Your task to perform on an android device: check storage Image 0: 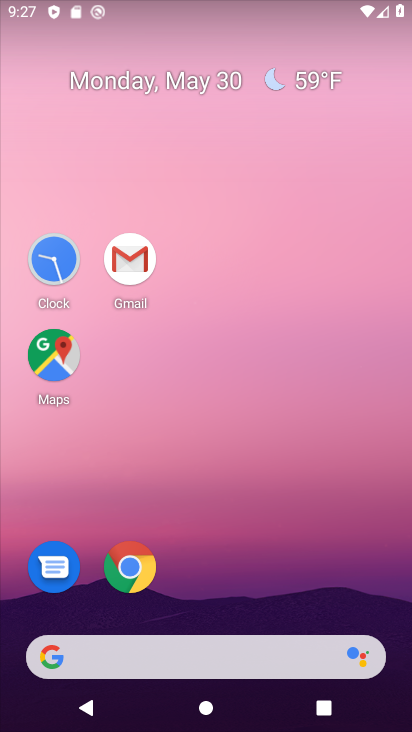
Step 0: drag from (266, 571) to (304, 157)
Your task to perform on an android device: check storage Image 1: 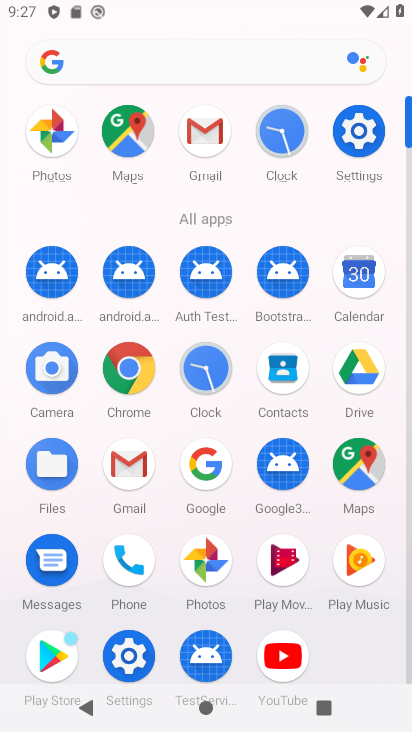
Step 1: click (356, 117)
Your task to perform on an android device: check storage Image 2: 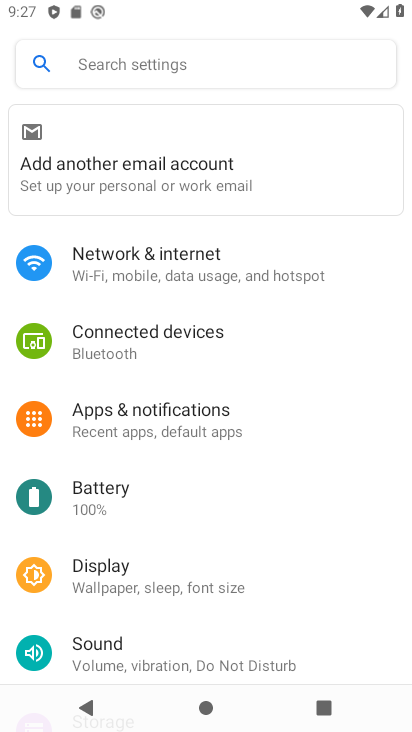
Step 2: drag from (160, 636) to (235, 224)
Your task to perform on an android device: check storage Image 3: 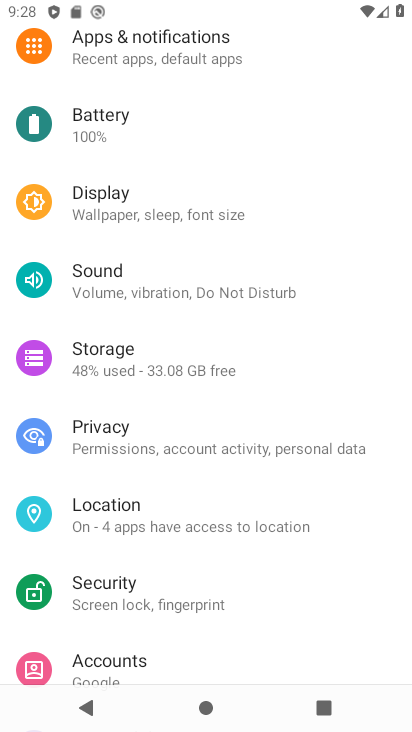
Step 3: click (177, 373)
Your task to perform on an android device: check storage Image 4: 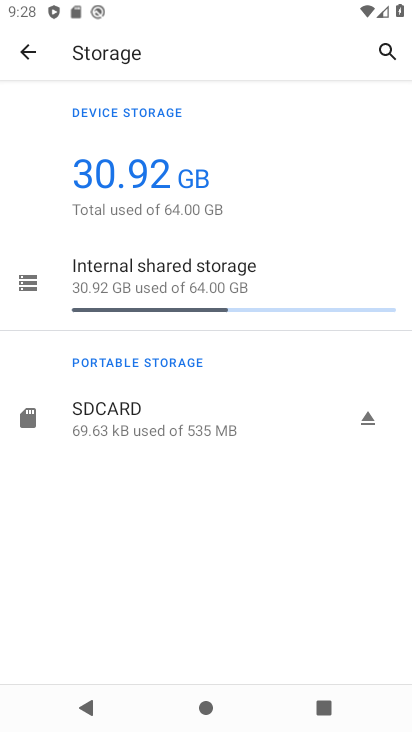
Step 4: task complete